Your task to perform on an android device: Go to Android settings Image 0: 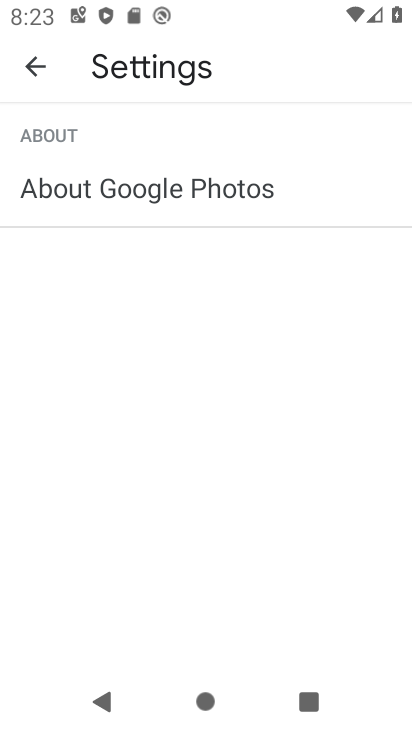
Step 0: press home button
Your task to perform on an android device: Go to Android settings Image 1: 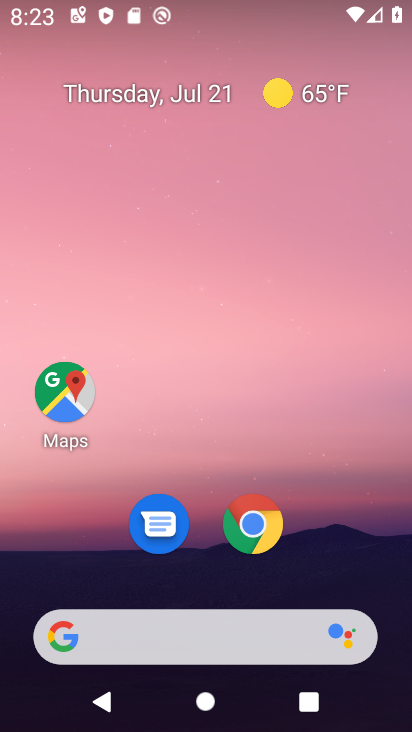
Step 1: drag from (202, 637) to (191, 69)
Your task to perform on an android device: Go to Android settings Image 2: 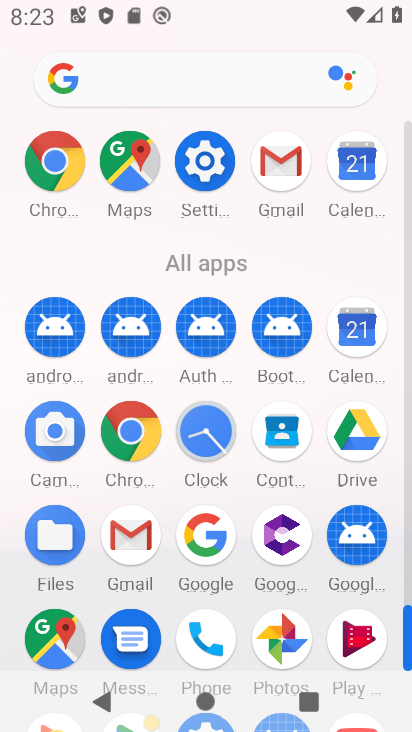
Step 2: click (201, 175)
Your task to perform on an android device: Go to Android settings Image 3: 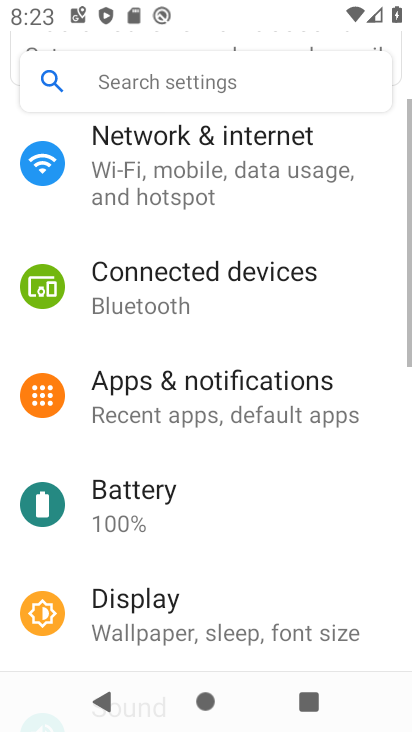
Step 3: task complete